Your task to perform on an android device: Open CNN.com Image 0: 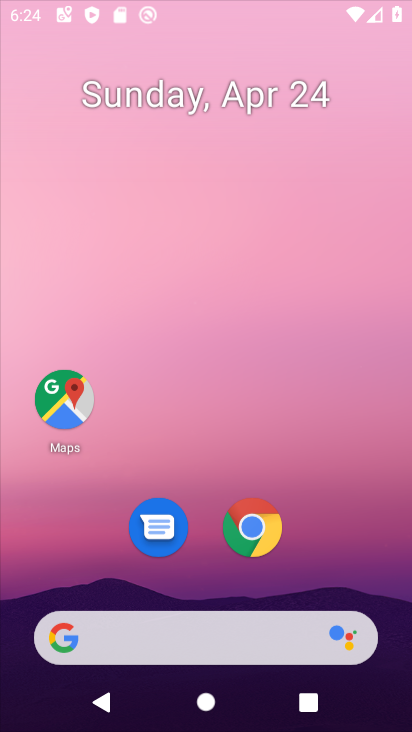
Step 0: click (149, 8)
Your task to perform on an android device: Open CNN.com Image 1: 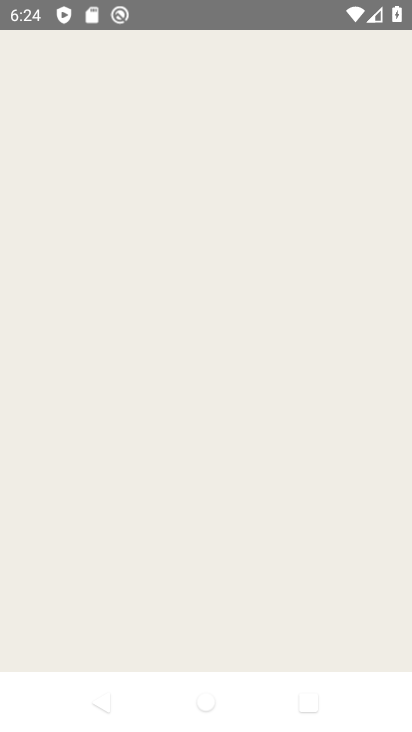
Step 1: press home button
Your task to perform on an android device: Open CNN.com Image 2: 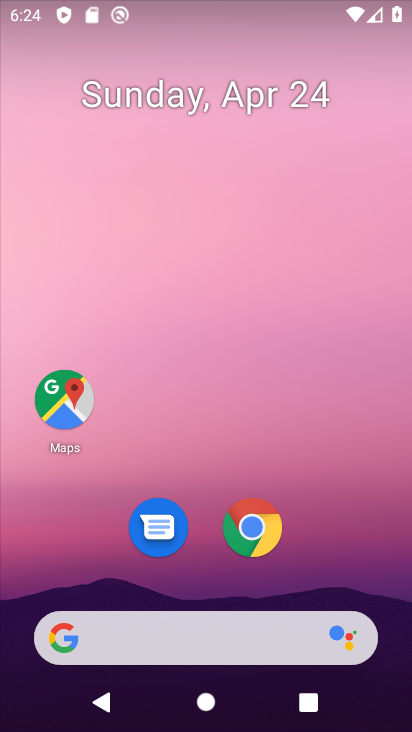
Step 2: click (259, 537)
Your task to perform on an android device: Open CNN.com Image 3: 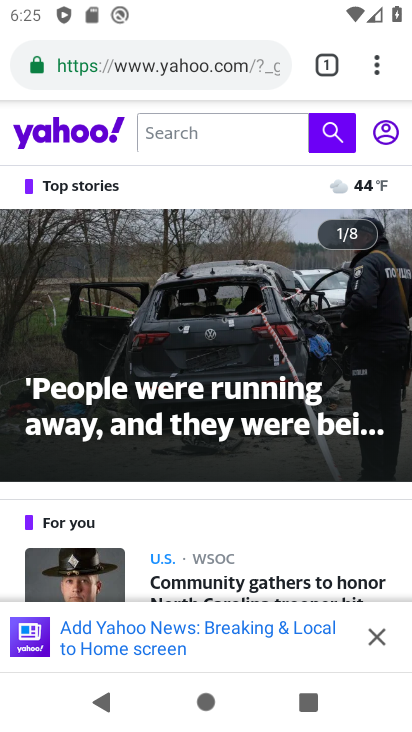
Step 3: click (377, 68)
Your task to perform on an android device: Open CNN.com Image 4: 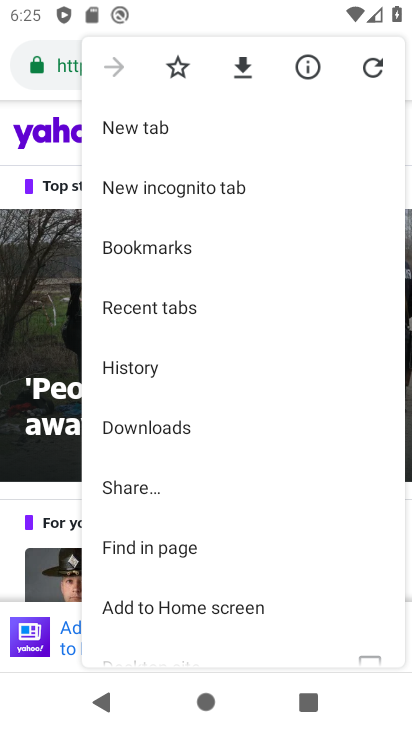
Step 4: click (137, 131)
Your task to perform on an android device: Open CNN.com Image 5: 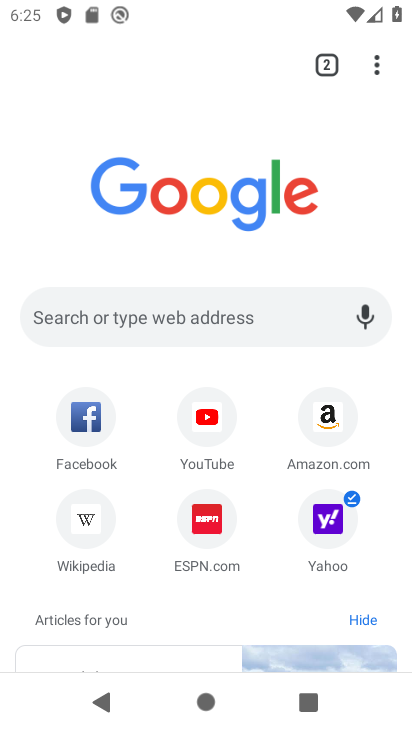
Step 5: click (205, 315)
Your task to perform on an android device: Open CNN.com Image 6: 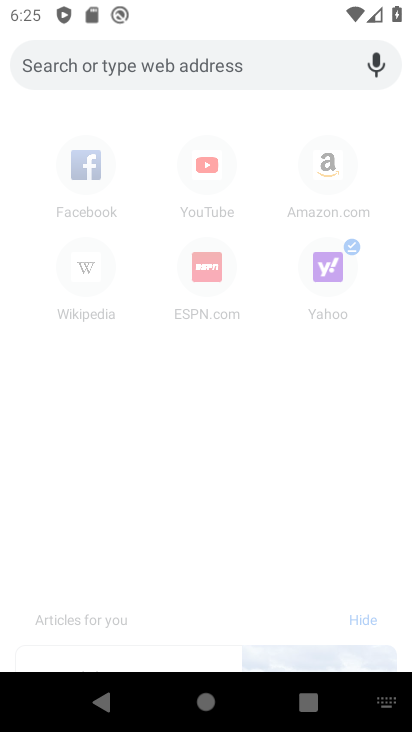
Step 6: type "CNN.com"
Your task to perform on an android device: Open CNN.com Image 7: 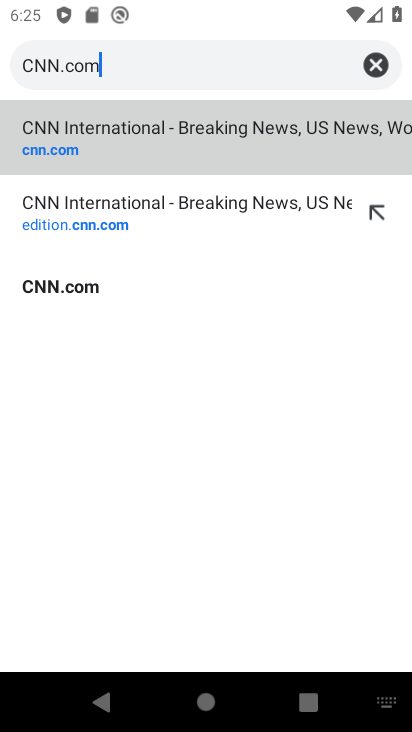
Step 7: type ""
Your task to perform on an android device: Open CNN.com Image 8: 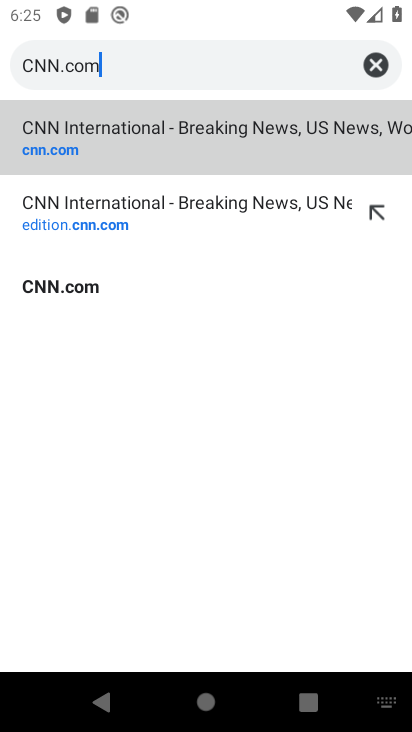
Step 8: click (88, 279)
Your task to perform on an android device: Open CNN.com Image 9: 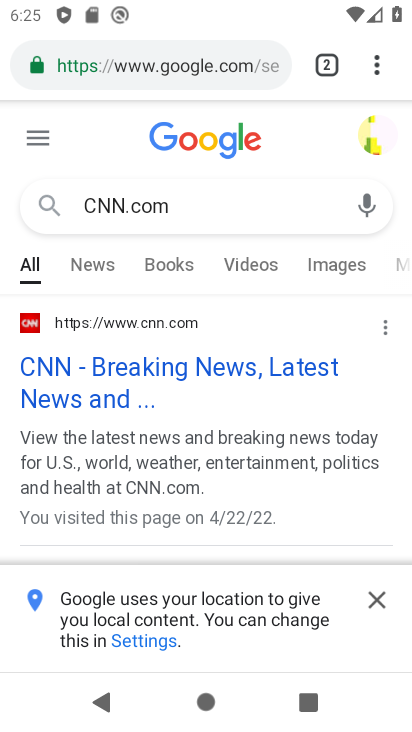
Step 9: task complete